Your task to perform on an android device: Go to Yahoo.com Image 0: 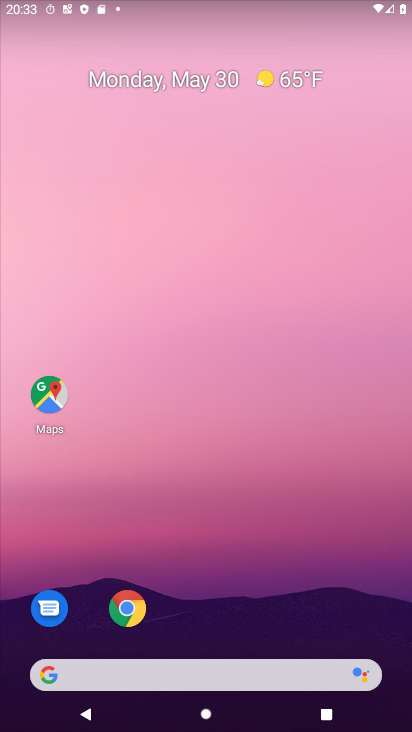
Step 0: click (124, 616)
Your task to perform on an android device: Go to Yahoo.com Image 1: 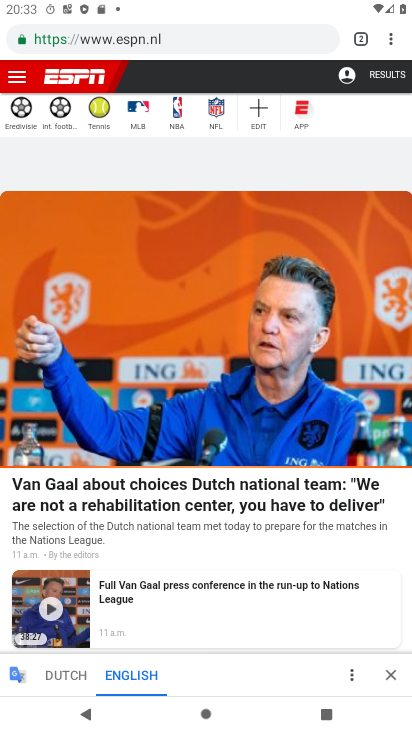
Step 1: click (356, 36)
Your task to perform on an android device: Go to Yahoo.com Image 2: 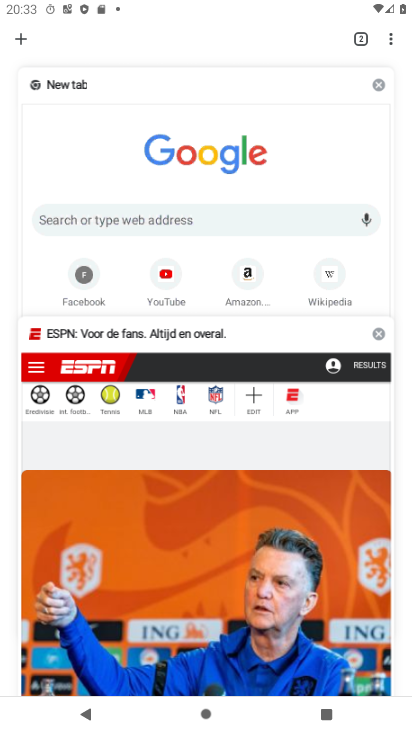
Step 2: click (22, 45)
Your task to perform on an android device: Go to Yahoo.com Image 3: 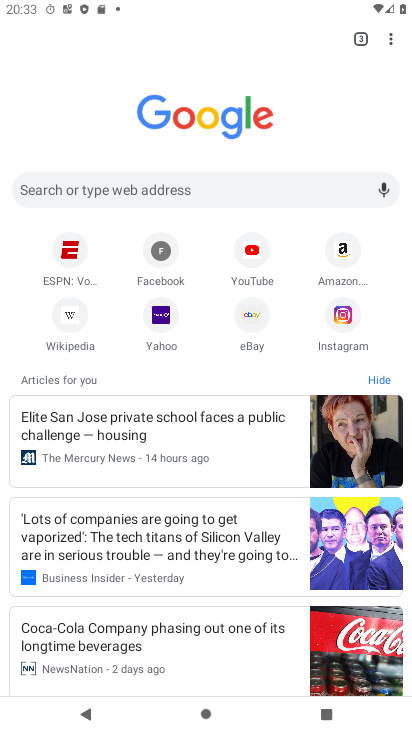
Step 3: click (176, 314)
Your task to perform on an android device: Go to Yahoo.com Image 4: 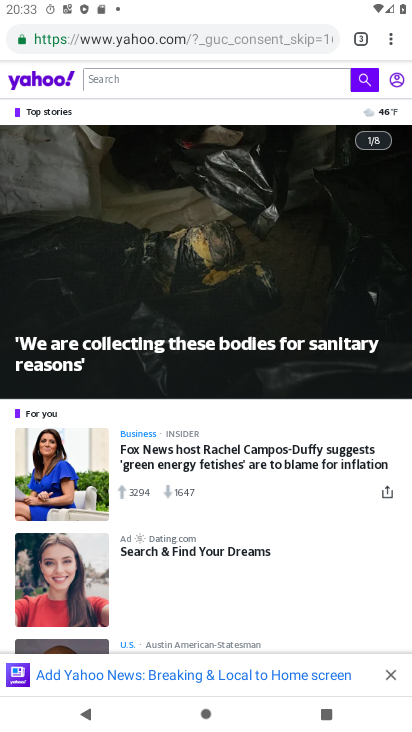
Step 4: task complete